Your task to perform on an android device: Open Youtube and go to the subscriptions tab Image 0: 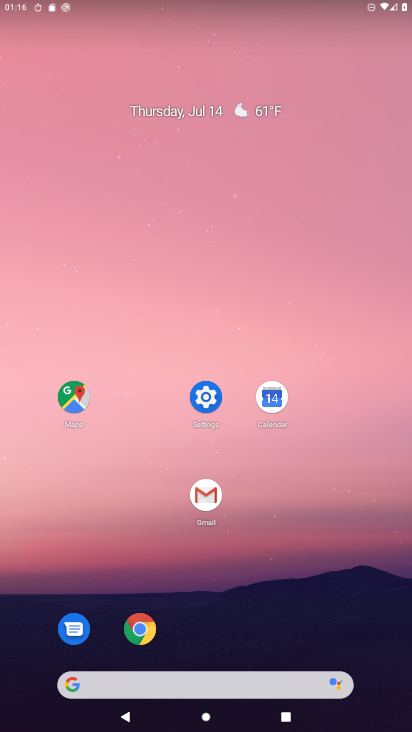
Step 0: click (204, 397)
Your task to perform on an android device: Open Youtube and go to the subscriptions tab Image 1: 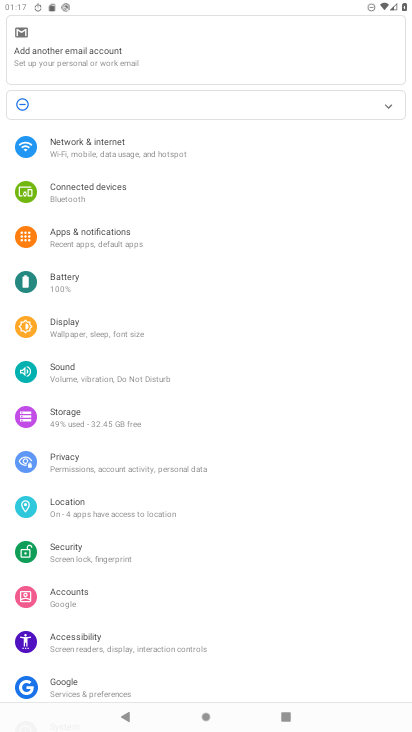
Step 1: press home button
Your task to perform on an android device: Open Youtube and go to the subscriptions tab Image 2: 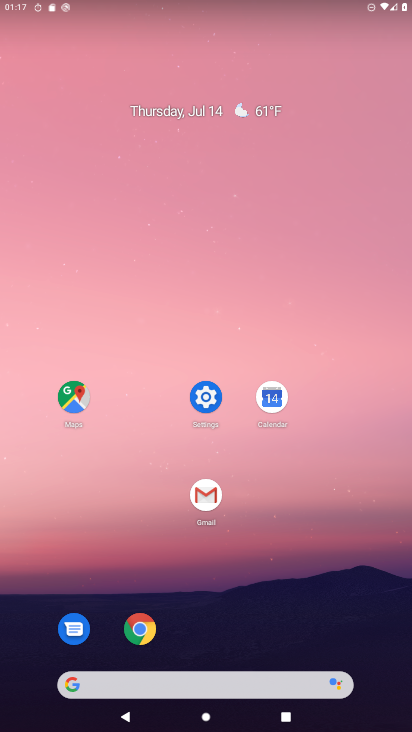
Step 2: drag from (380, 710) to (337, 155)
Your task to perform on an android device: Open Youtube and go to the subscriptions tab Image 3: 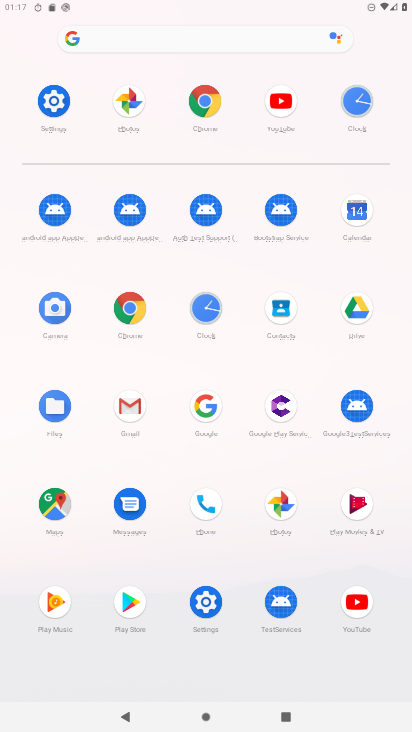
Step 3: click (348, 602)
Your task to perform on an android device: Open Youtube and go to the subscriptions tab Image 4: 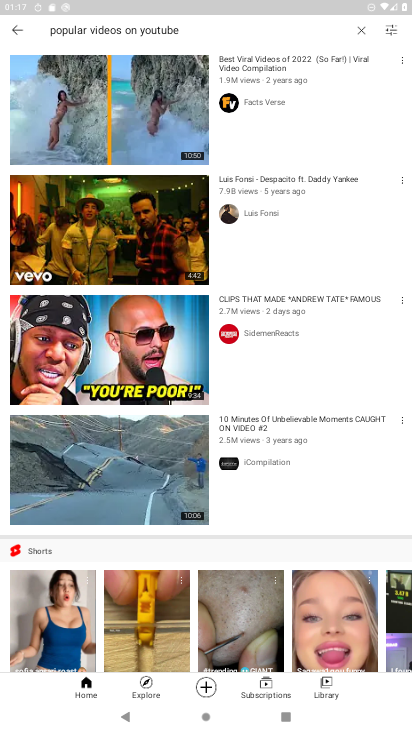
Step 4: click (256, 679)
Your task to perform on an android device: Open Youtube and go to the subscriptions tab Image 5: 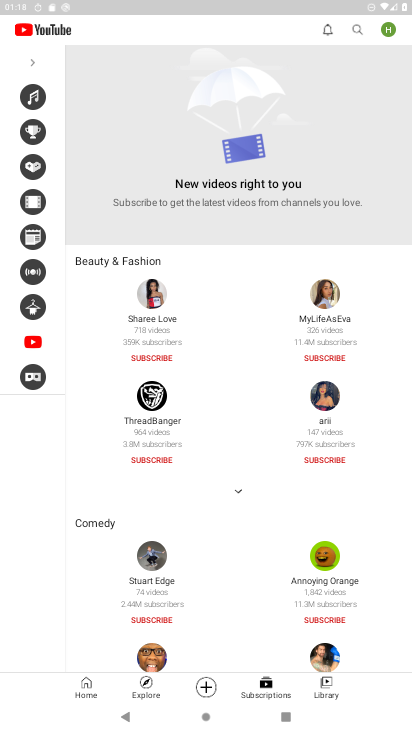
Step 5: task complete